Your task to perform on an android device: turn off location Image 0: 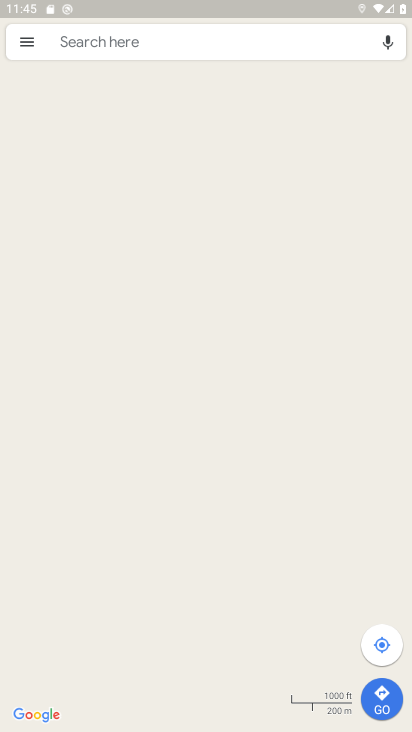
Step 0: press home button
Your task to perform on an android device: turn off location Image 1: 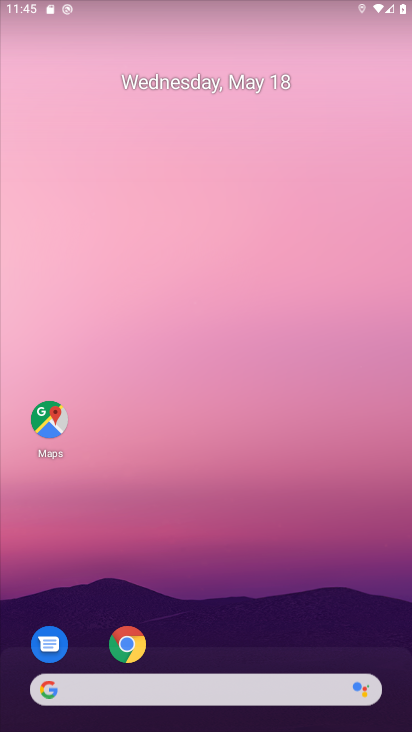
Step 1: drag from (350, 599) to (378, 203)
Your task to perform on an android device: turn off location Image 2: 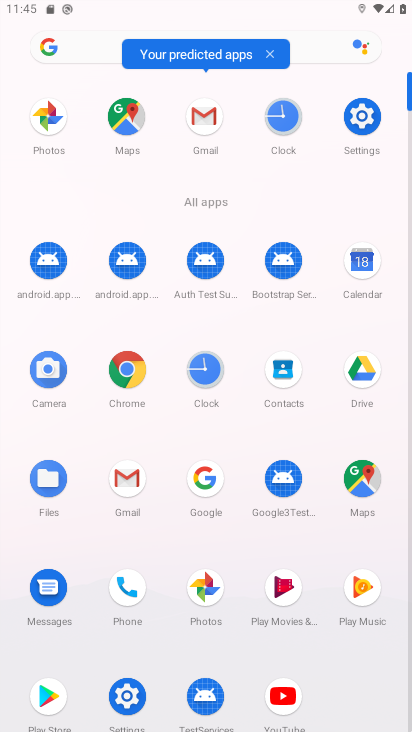
Step 2: click (368, 122)
Your task to perform on an android device: turn off location Image 3: 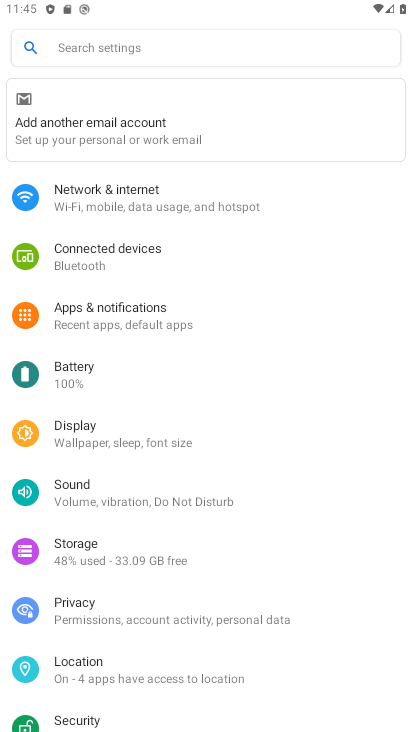
Step 3: click (127, 673)
Your task to perform on an android device: turn off location Image 4: 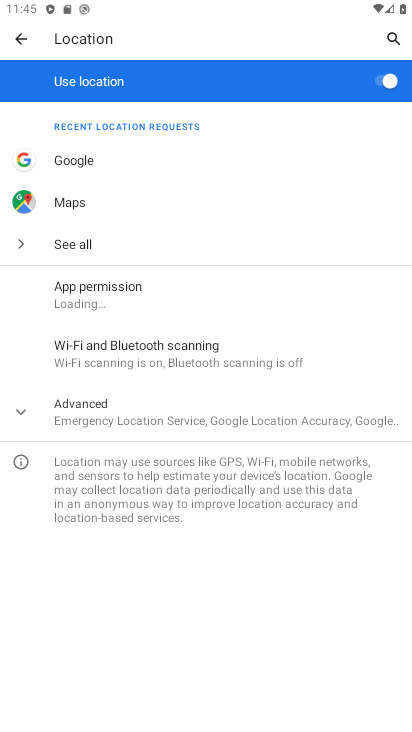
Step 4: click (377, 83)
Your task to perform on an android device: turn off location Image 5: 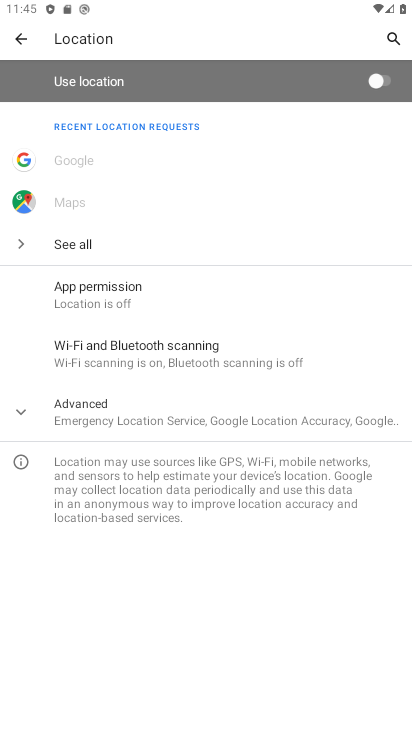
Step 5: task complete